Your task to perform on an android device: Do I have any events tomorrow? Image 0: 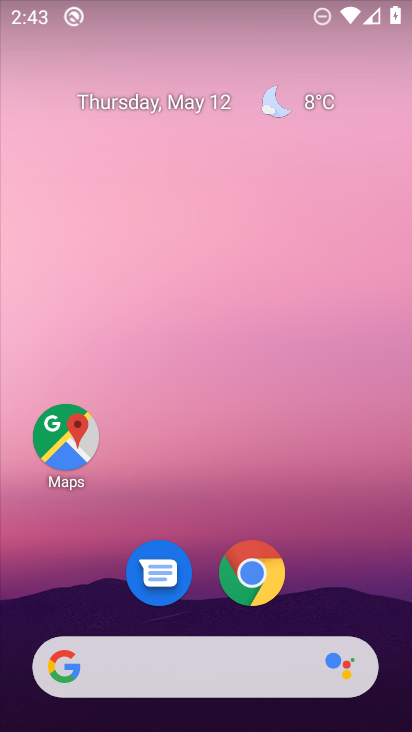
Step 0: drag from (381, 643) to (164, 152)
Your task to perform on an android device: Do I have any events tomorrow? Image 1: 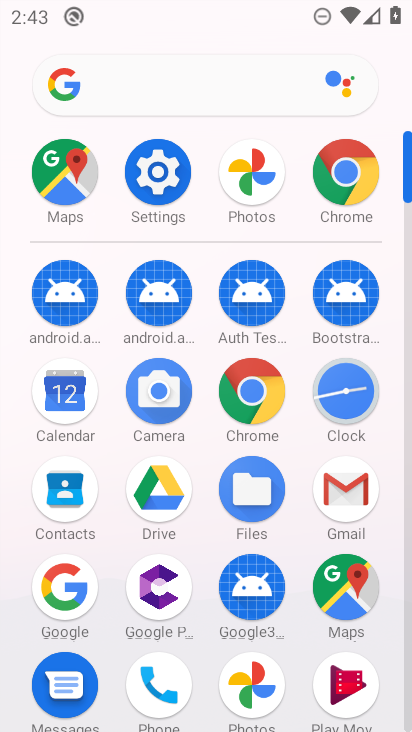
Step 1: click (69, 395)
Your task to perform on an android device: Do I have any events tomorrow? Image 2: 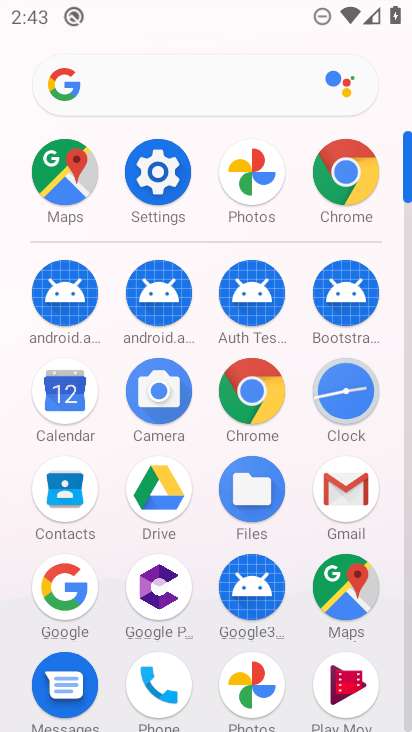
Step 2: click (74, 394)
Your task to perform on an android device: Do I have any events tomorrow? Image 3: 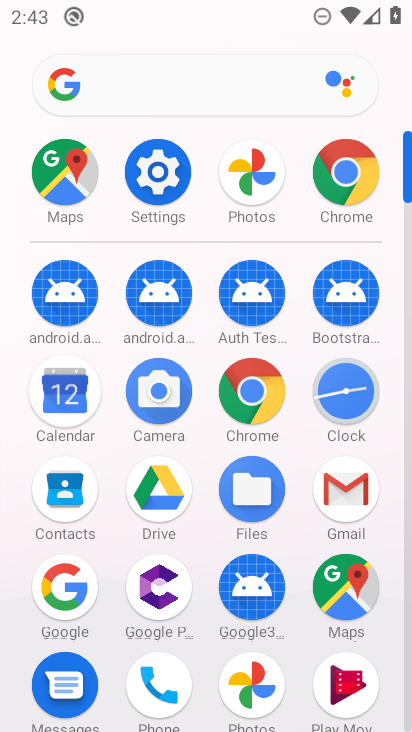
Step 3: click (75, 394)
Your task to perform on an android device: Do I have any events tomorrow? Image 4: 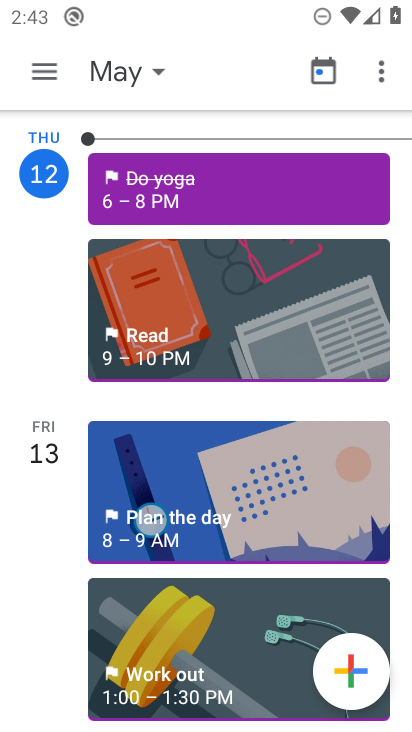
Step 4: task complete